Your task to perform on an android device: What's the weather today? Image 0: 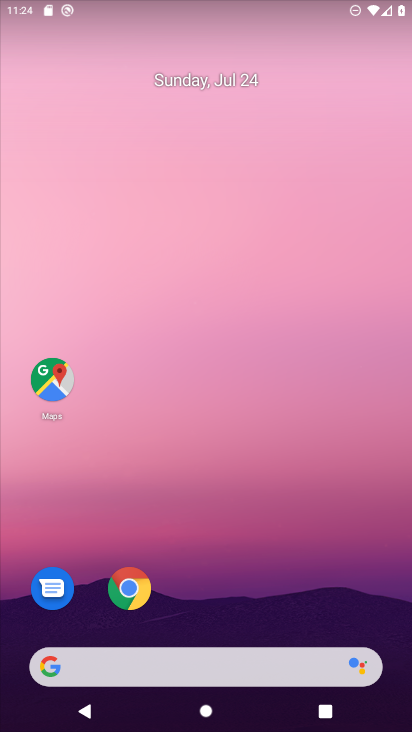
Step 0: drag from (248, 626) to (252, 76)
Your task to perform on an android device: What's the weather today? Image 1: 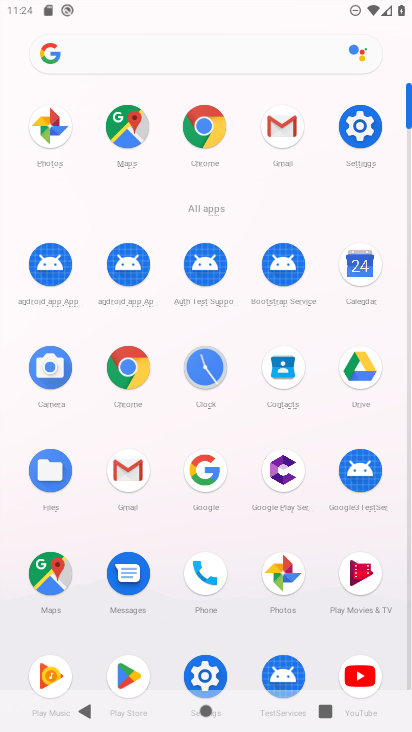
Step 1: click (196, 131)
Your task to perform on an android device: What's the weather today? Image 2: 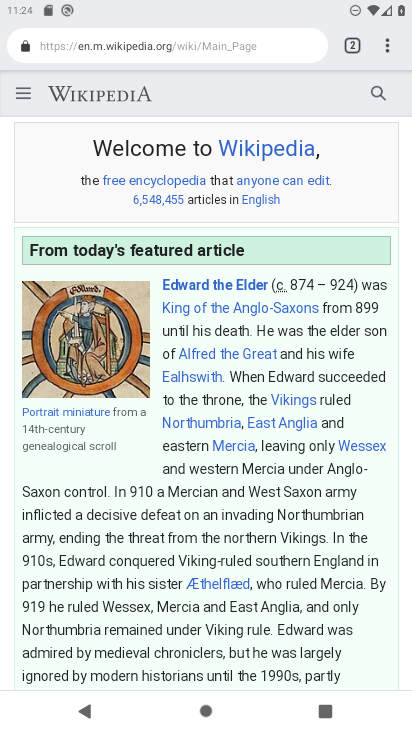
Step 2: click (184, 48)
Your task to perform on an android device: What's the weather today? Image 3: 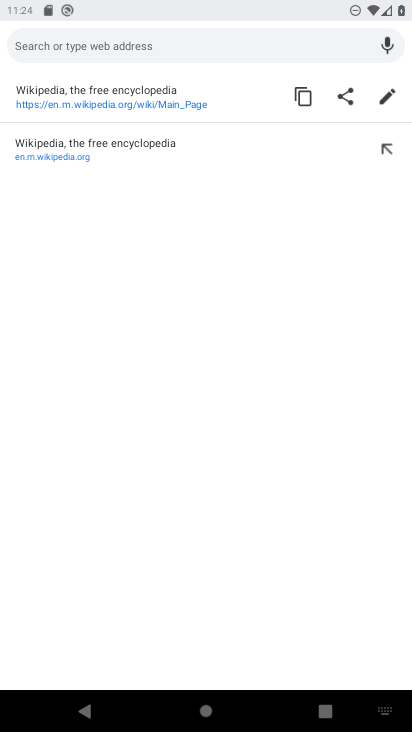
Step 3: type "What's the weather today?"
Your task to perform on an android device: What's the weather today? Image 4: 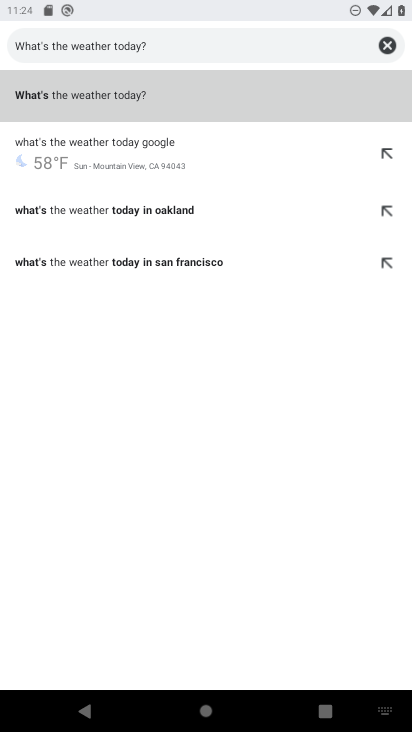
Step 4: click (129, 93)
Your task to perform on an android device: What's the weather today? Image 5: 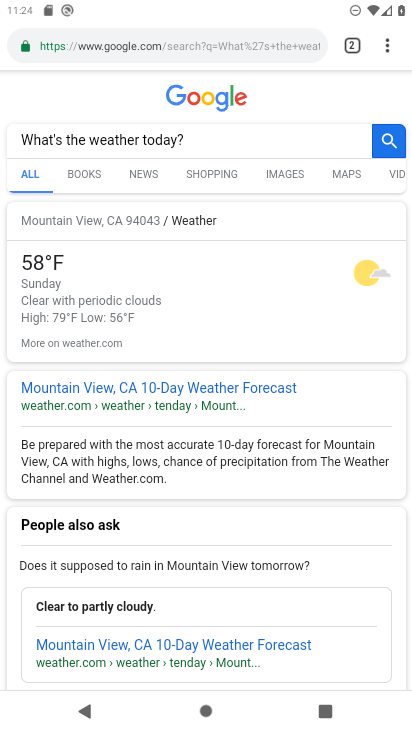
Step 5: task complete